Your task to perform on an android device: Go to Google Image 0: 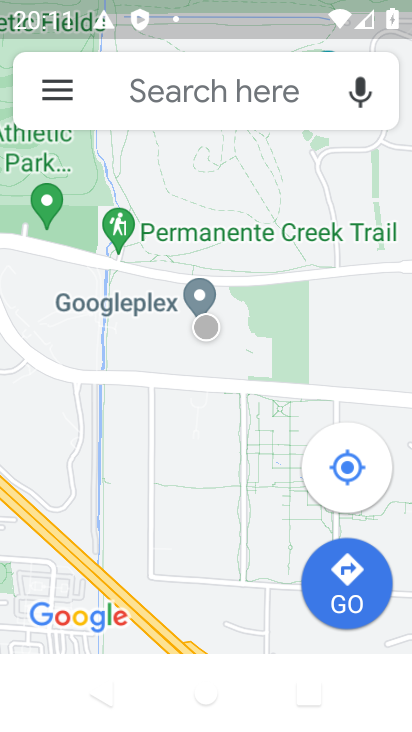
Step 0: press home button
Your task to perform on an android device: Go to Google Image 1: 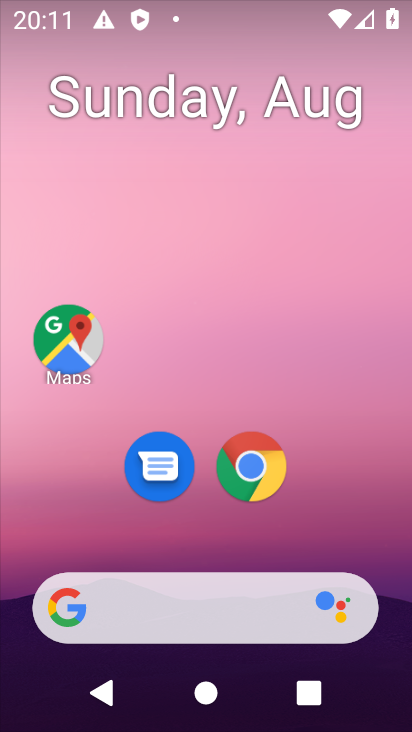
Step 1: drag from (381, 535) to (336, 13)
Your task to perform on an android device: Go to Google Image 2: 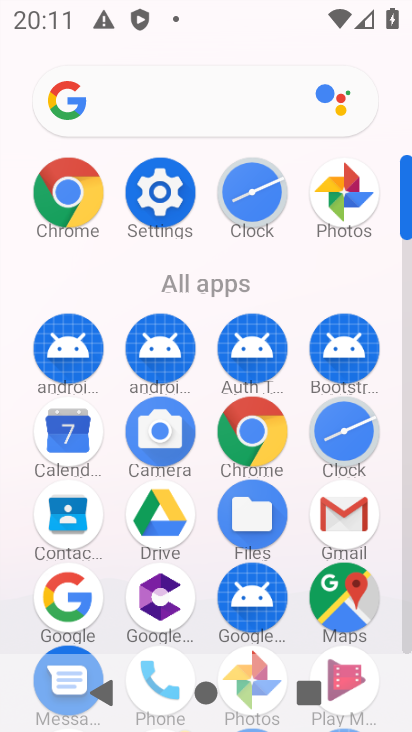
Step 2: click (85, 585)
Your task to perform on an android device: Go to Google Image 3: 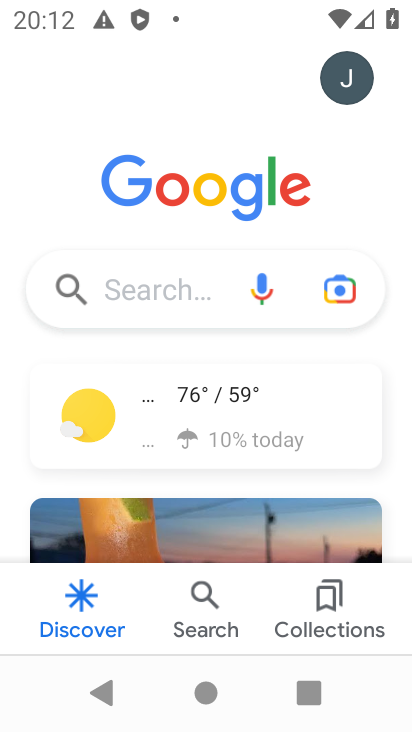
Step 3: task complete